Your task to perform on an android device: change your default location settings in chrome Image 0: 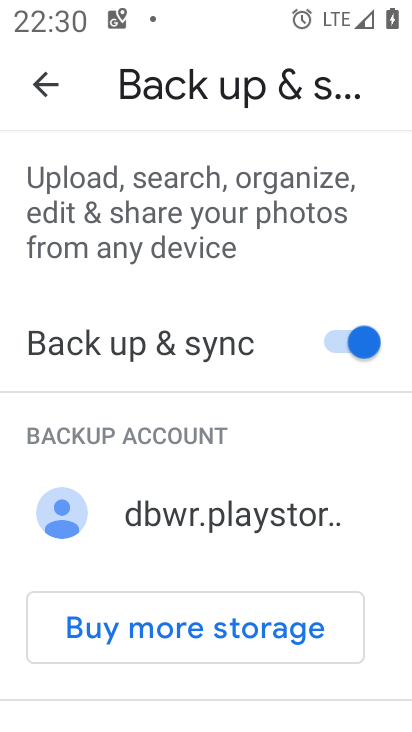
Step 0: press home button
Your task to perform on an android device: change your default location settings in chrome Image 1: 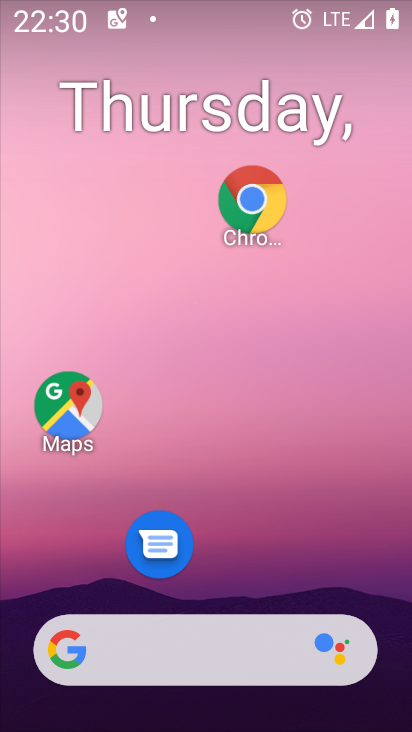
Step 1: click (256, 196)
Your task to perform on an android device: change your default location settings in chrome Image 2: 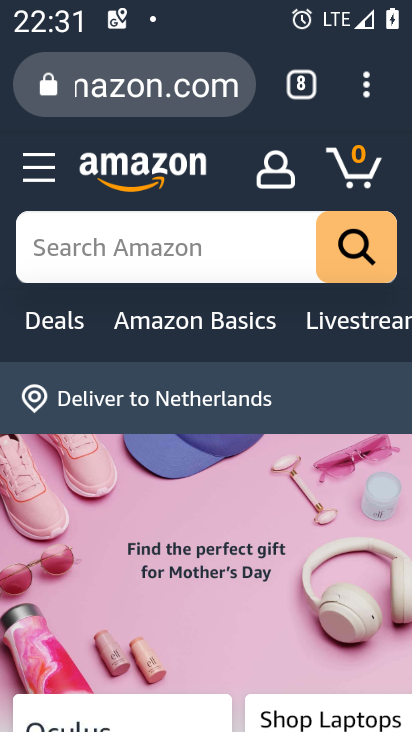
Step 2: click (377, 77)
Your task to perform on an android device: change your default location settings in chrome Image 3: 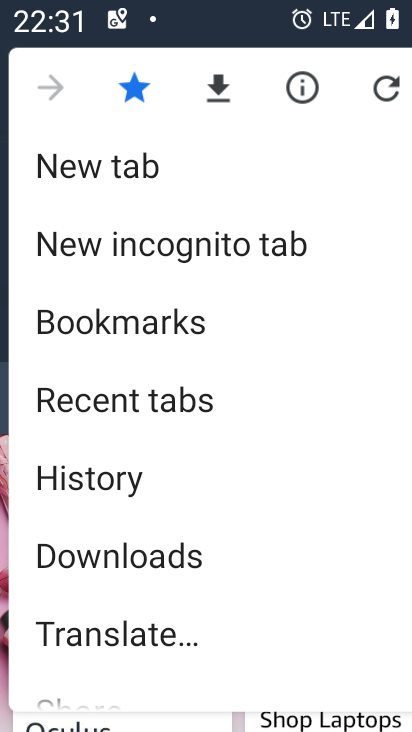
Step 3: drag from (239, 638) to (175, 166)
Your task to perform on an android device: change your default location settings in chrome Image 4: 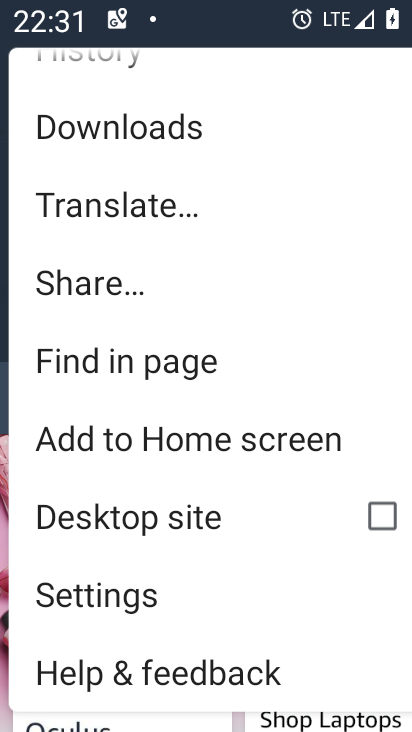
Step 4: click (109, 614)
Your task to perform on an android device: change your default location settings in chrome Image 5: 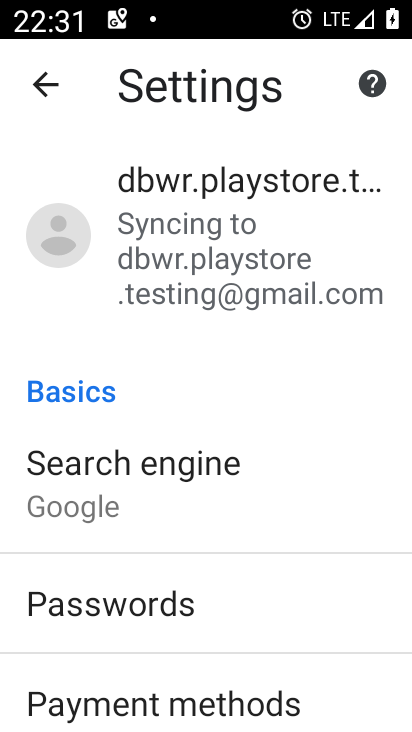
Step 5: drag from (127, 618) to (176, 130)
Your task to perform on an android device: change your default location settings in chrome Image 6: 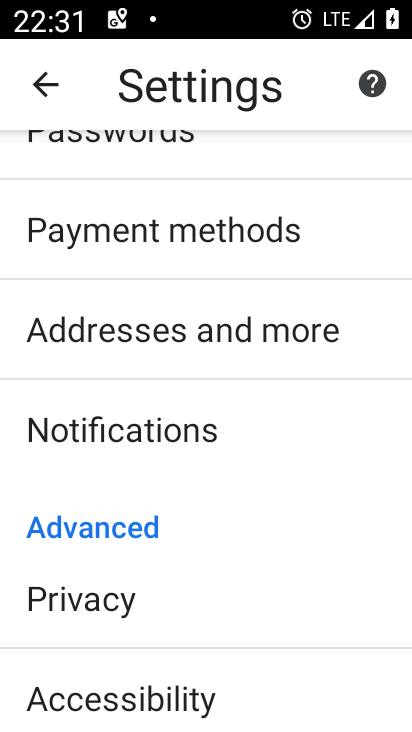
Step 6: drag from (162, 683) to (182, 377)
Your task to perform on an android device: change your default location settings in chrome Image 7: 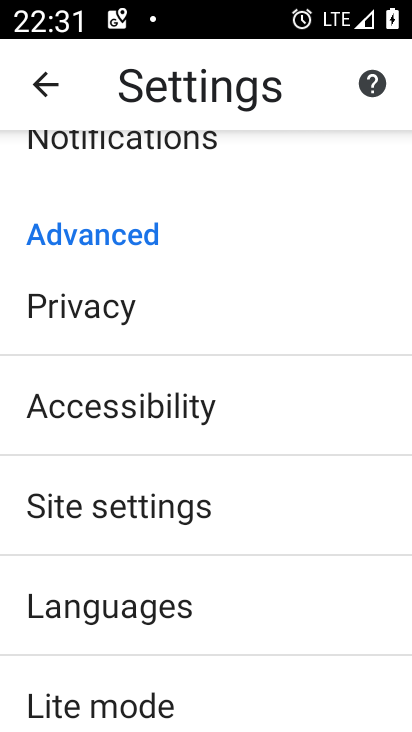
Step 7: drag from (157, 592) to (188, 293)
Your task to perform on an android device: change your default location settings in chrome Image 8: 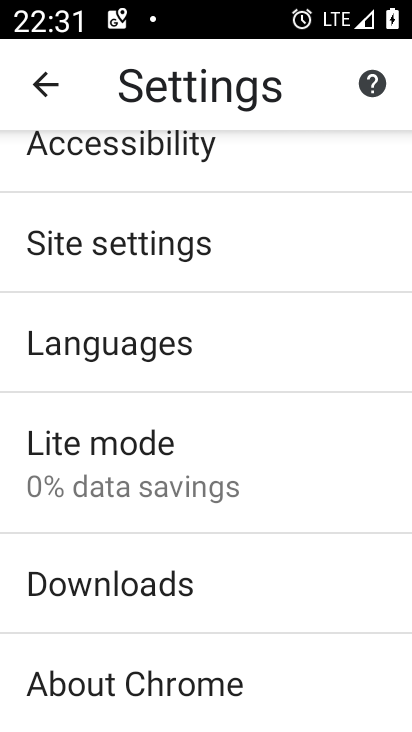
Step 8: click (182, 231)
Your task to perform on an android device: change your default location settings in chrome Image 9: 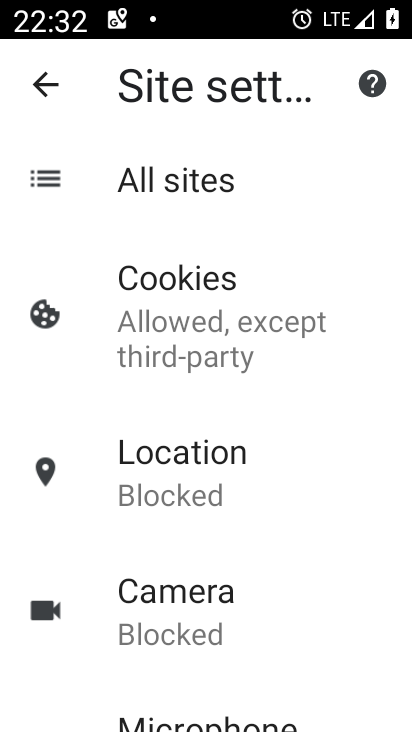
Step 9: drag from (194, 661) to (243, 161)
Your task to perform on an android device: change your default location settings in chrome Image 10: 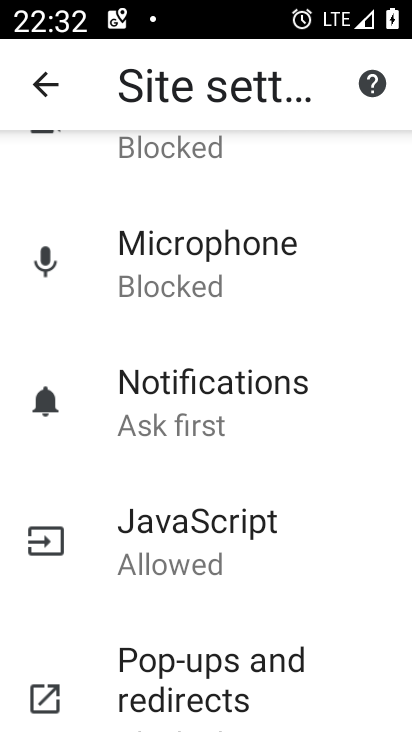
Step 10: click (45, 82)
Your task to perform on an android device: change your default location settings in chrome Image 11: 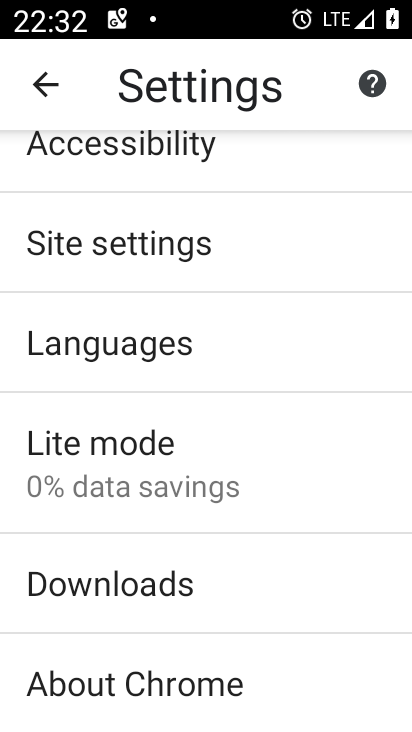
Step 11: drag from (240, 151) to (277, 621)
Your task to perform on an android device: change your default location settings in chrome Image 12: 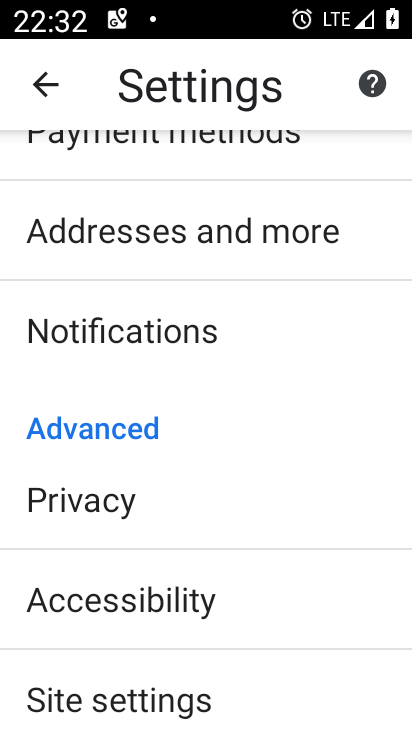
Step 12: drag from (237, 186) to (240, 548)
Your task to perform on an android device: change your default location settings in chrome Image 13: 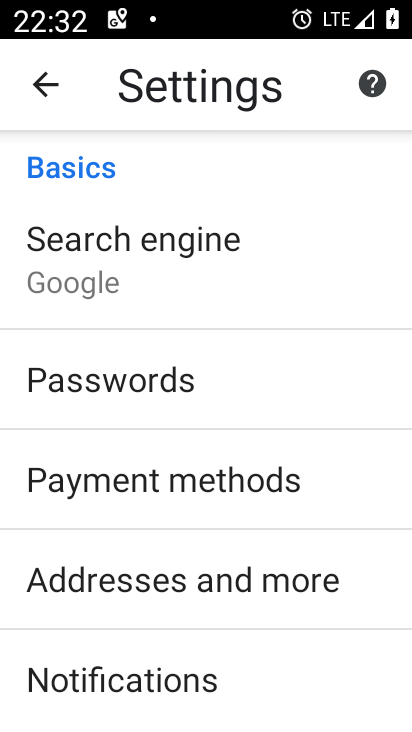
Step 13: drag from (226, 576) to (251, 219)
Your task to perform on an android device: change your default location settings in chrome Image 14: 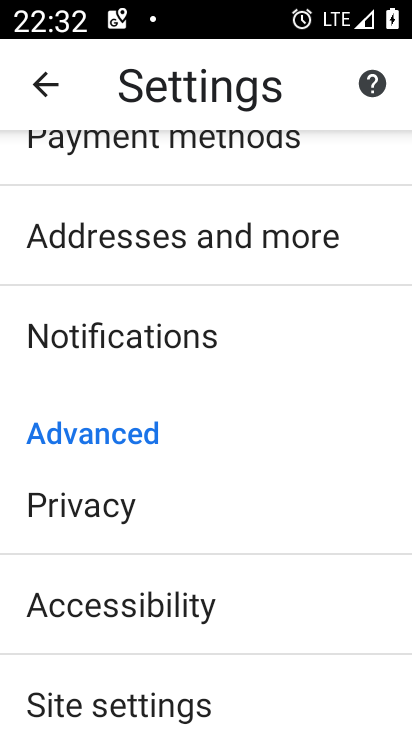
Step 14: drag from (144, 608) to (199, 243)
Your task to perform on an android device: change your default location settings in chrome Image 15: 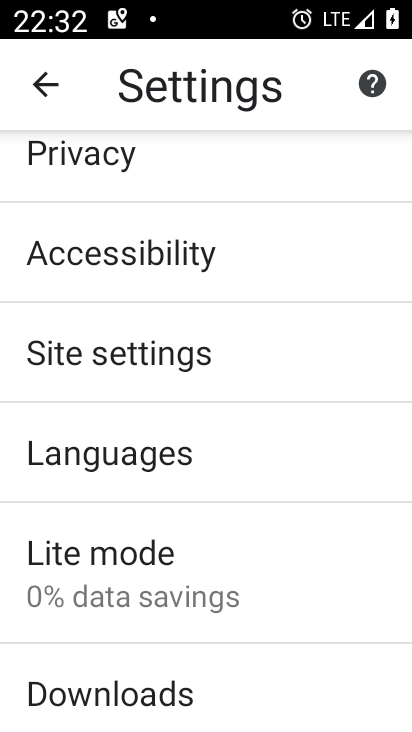
Step 15: click (158, 356)
Your task to perform on an android device: change your default location settings in chrome Image 16: 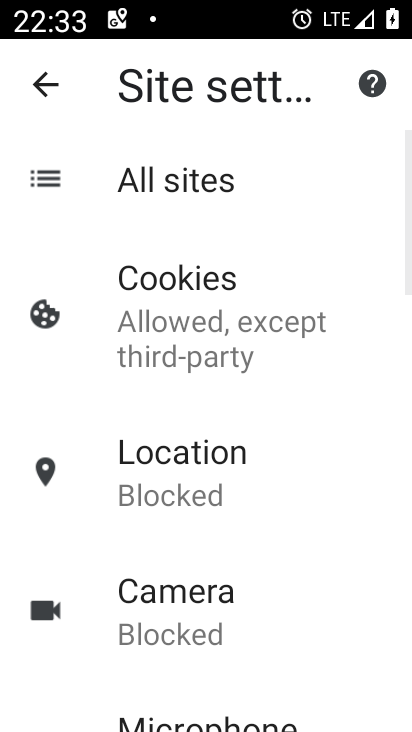
Step 16: click (252, 504)
Your task to perform on an android device: change your default location settings in chrome Image 17: 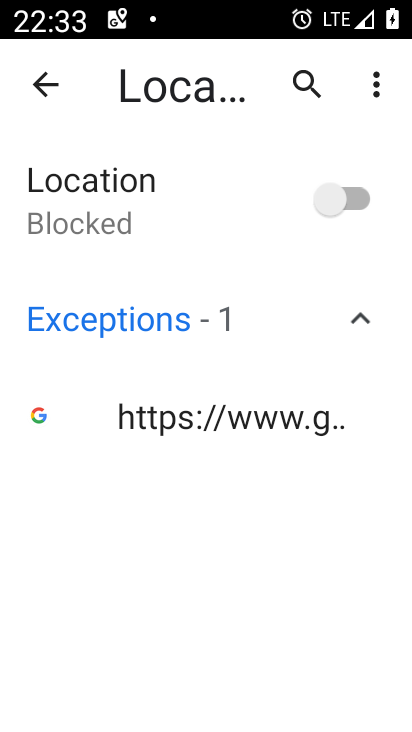
Step 17: click (368, 191)
Your task to perform on an android device: change your default location settings in chrome Image 18: 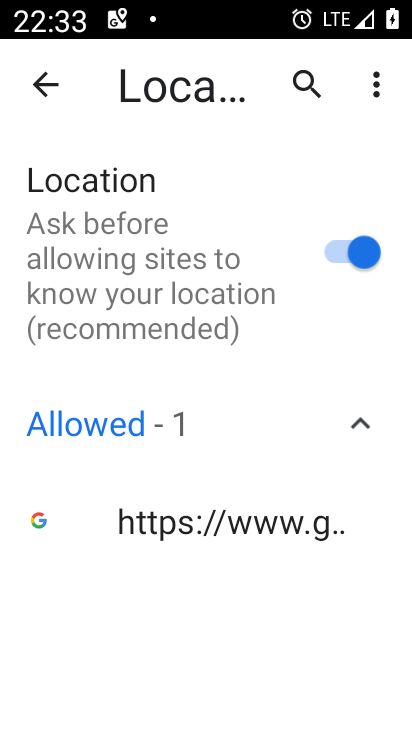
Step 18: task complete